Your task to perform on an android device: Open the Play Movies app and select the watchlist tab. Image 0: 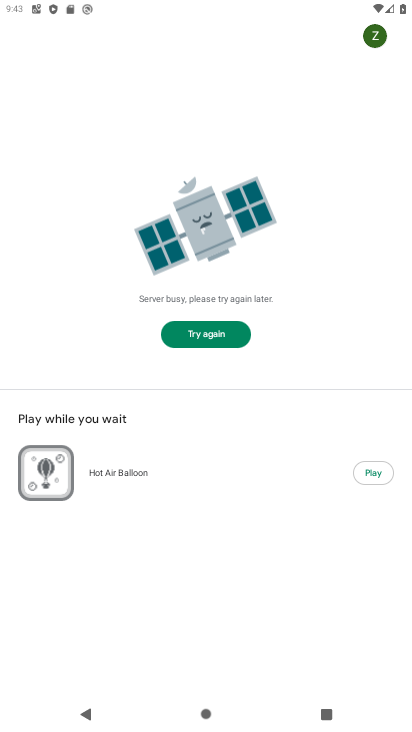
Step 0: press home button
Your task to perform on an android device: Open the Play Movies app and select the watchlist tab. Image 1: 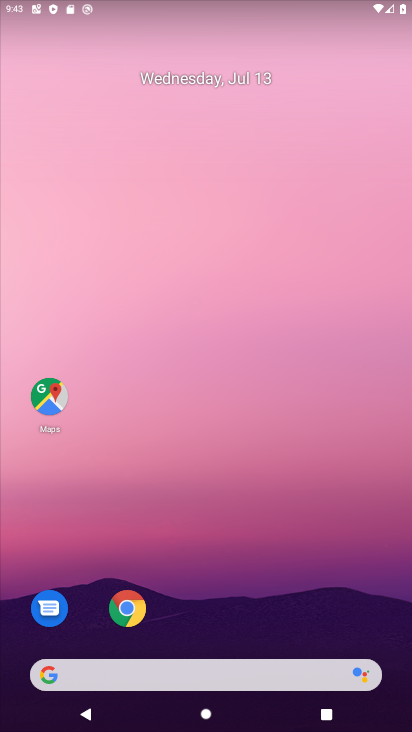
Step 1: drag from (183, 627) to (214, 25)
Your task to perform on an android device: Open the Play Movies app and select the watchlist tab. Image 2: 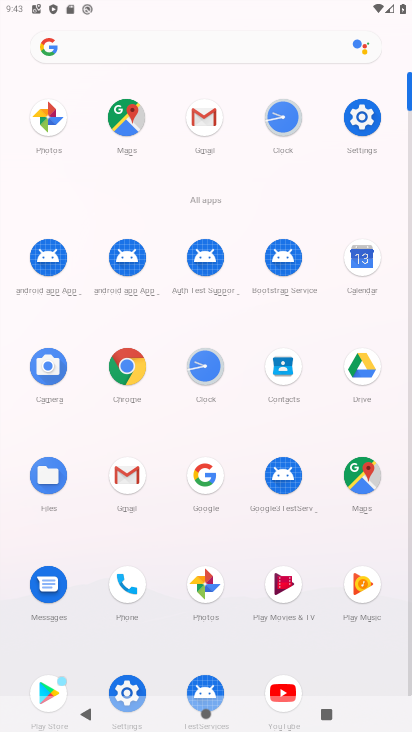
Step 2: click (298, 602)
Your task to perform on an android device: Open the Play Movies app and select the watchlist tab. Image 3: 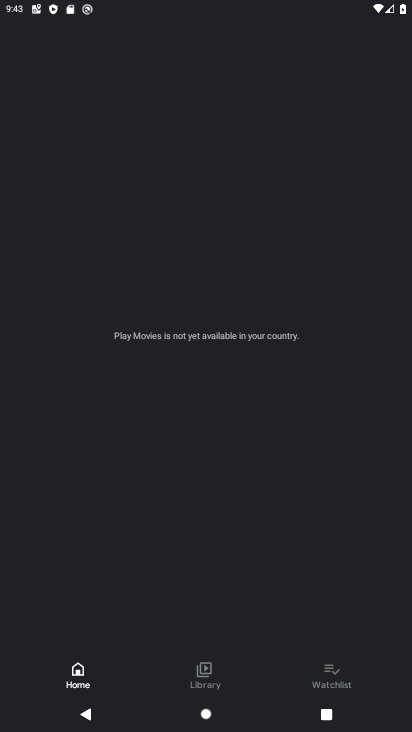
Step 3: click (331, 670)
Your task to perform on an android device: Open the Play Movies app and select the watchlist tab. Image 4: 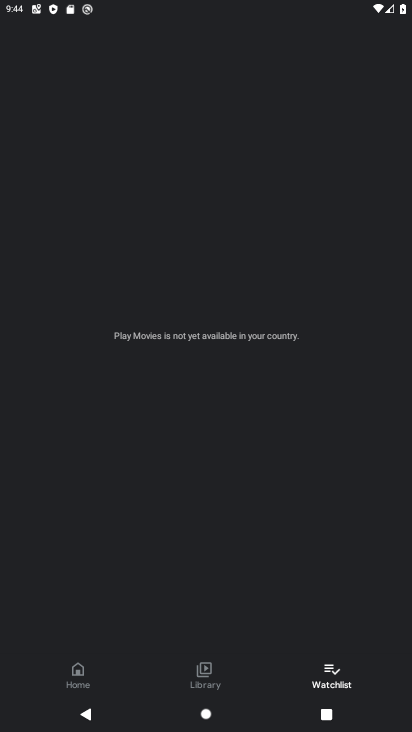
Step 4: task complete